Your task to perform on an android device: Clear all items from cart on newegg.com. Add "razer blade" to the cart on newegg.com Image 0: 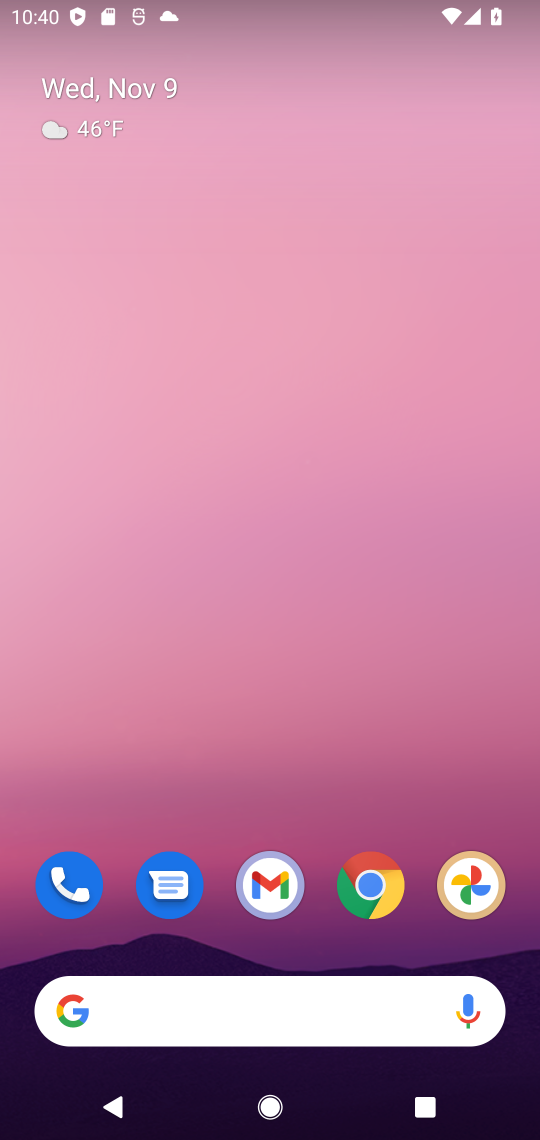
Step 0: click (373, 876)
Your task to perform on an android device: Clear all items from cart on newegg.com. Add "razer blade" to the cart on newegg.com Image 1: 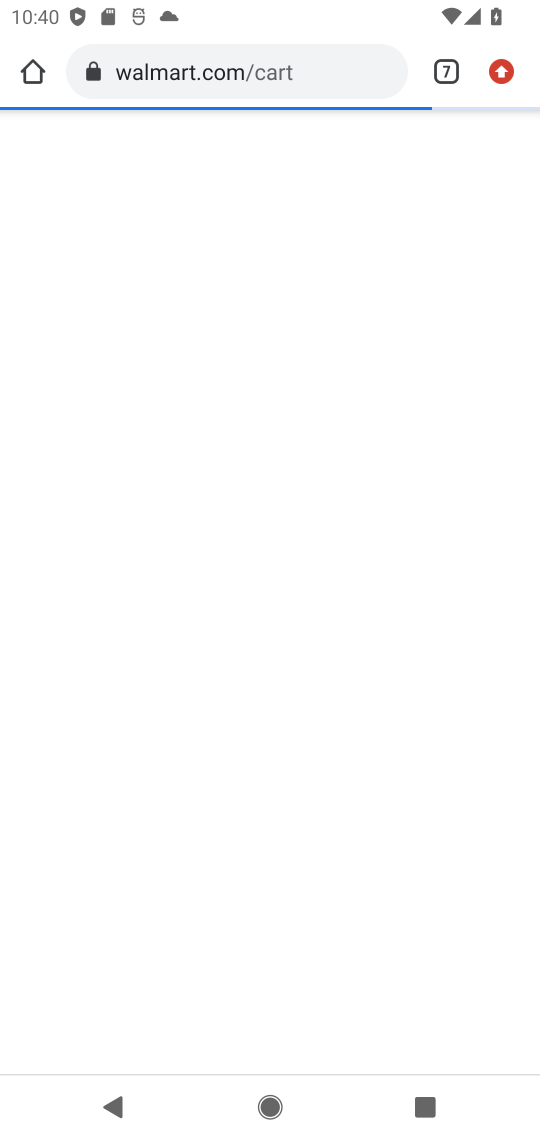
Step 1: click (446, 71)
Your task to perform on an android device: Clear all items from cart on newegg.com. Add "razer blade" to the cart on newegg.com Image 2: 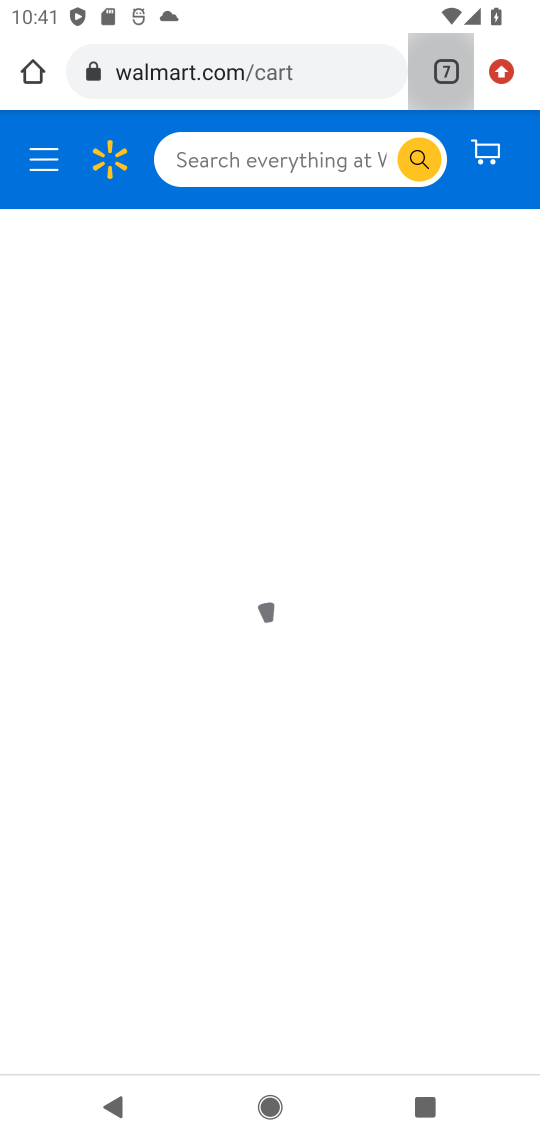
Step 2: click (446, 71)
Your task to perform on an android device: Clear all items from cart on newegg.com. Add "razer blade" to the cart on newegg.com Image 3: 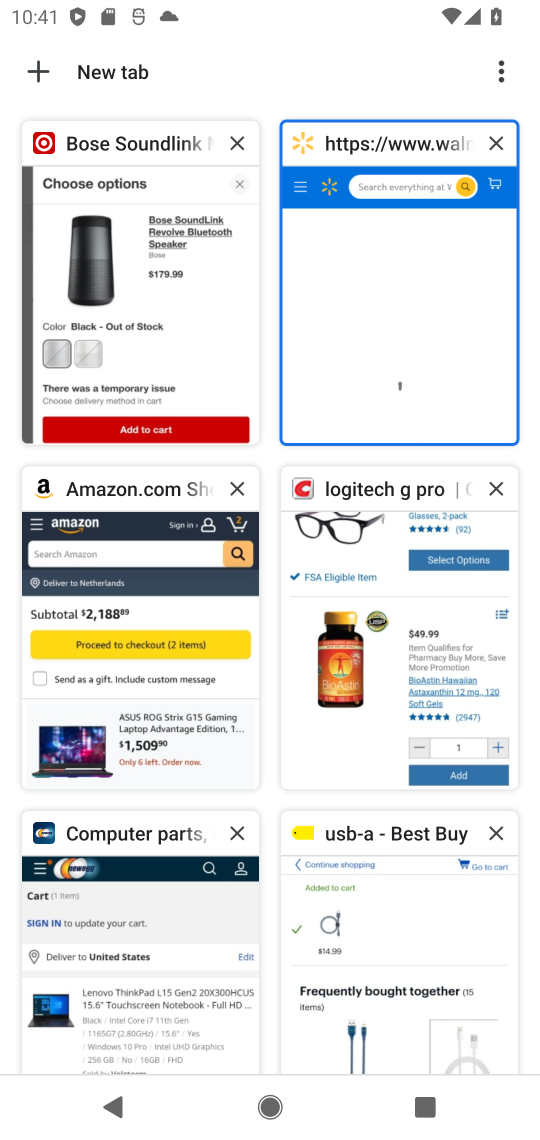
Step 3: click (159, 946)
Your task to perform on an android device: Clear all items from cart on newegg.com. Add "razer blade" to the cart on newegg.com Image 4: 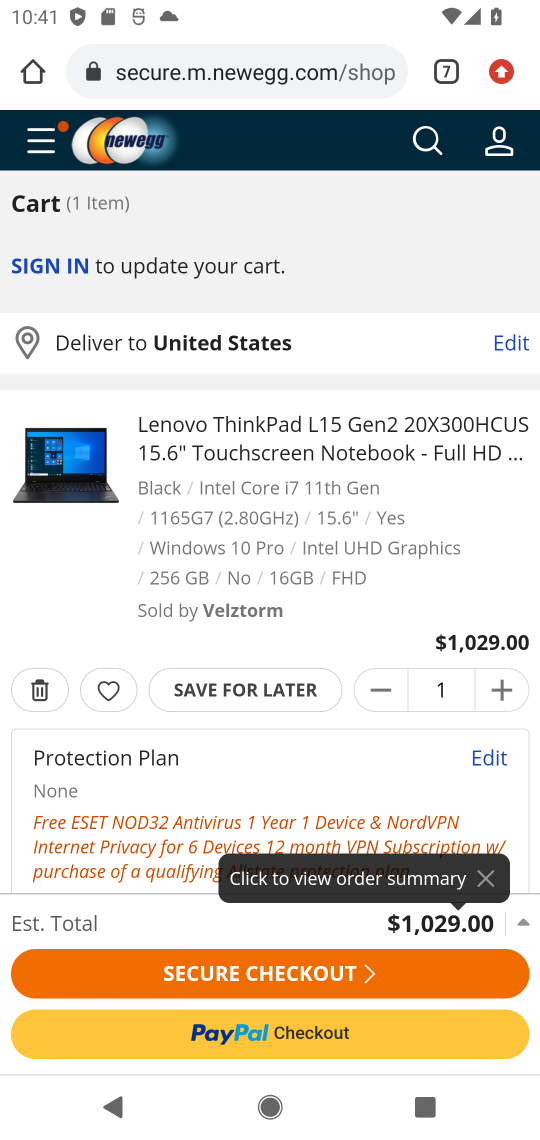
Step 4: click (34, 700)
Your task to perform on an android device: Clear all items from cart on newegg.com. Add "razer blade" to the cart on newegg.com Image 5: 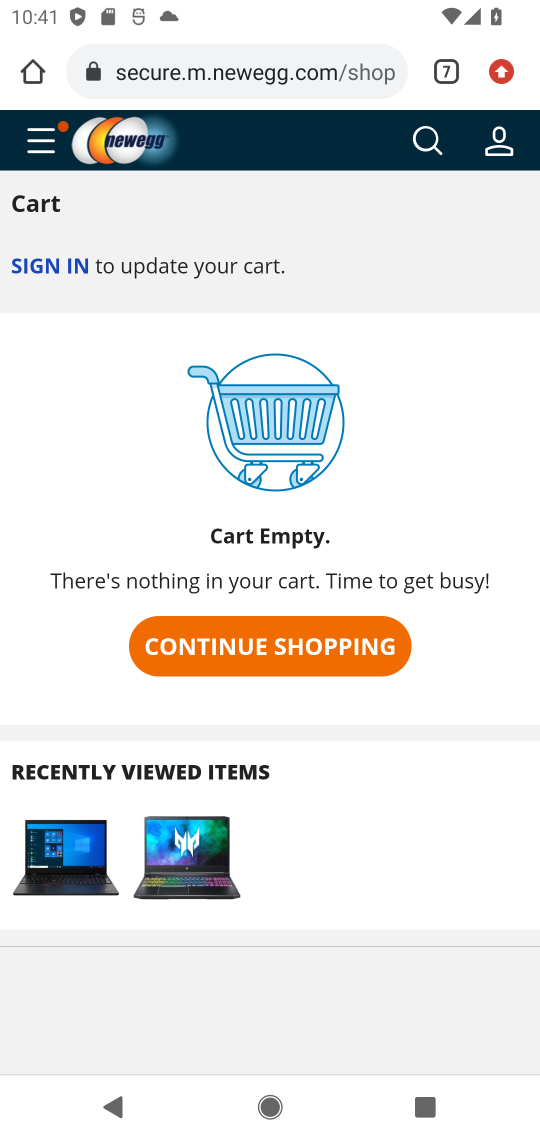
Step 5: click (420, 140)
Your task to perform on an android device: Clear all items from cart on newegg.com. Add "razer blade" to the cart on newegg.com Image 6: 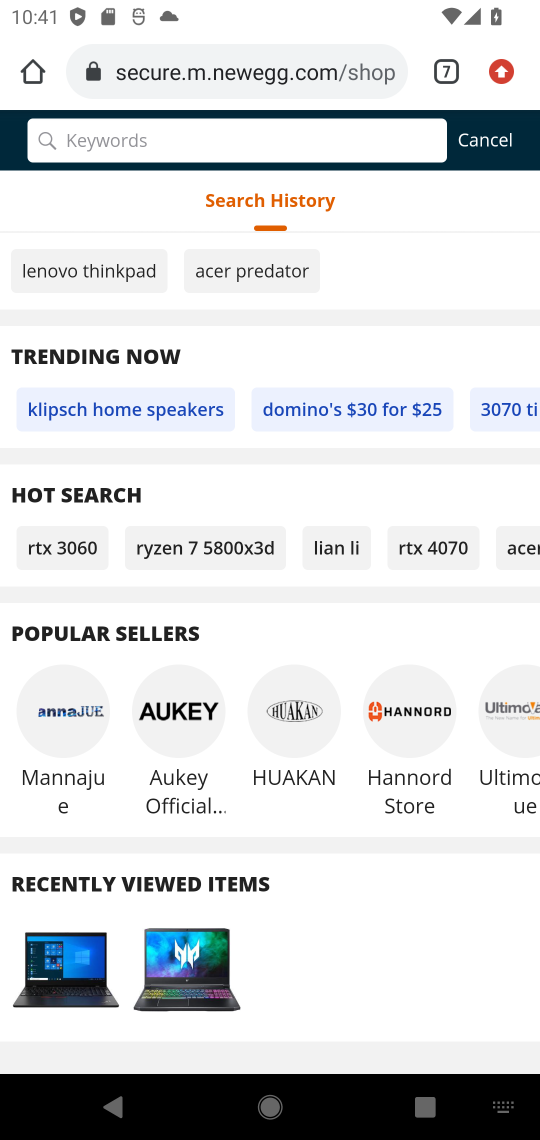
Step 6: type "razer blade"
Your task to perform on an android device: Clear all items from cart on newegg.com. Add "razer blade" to the cart on newegg.com Image 7: 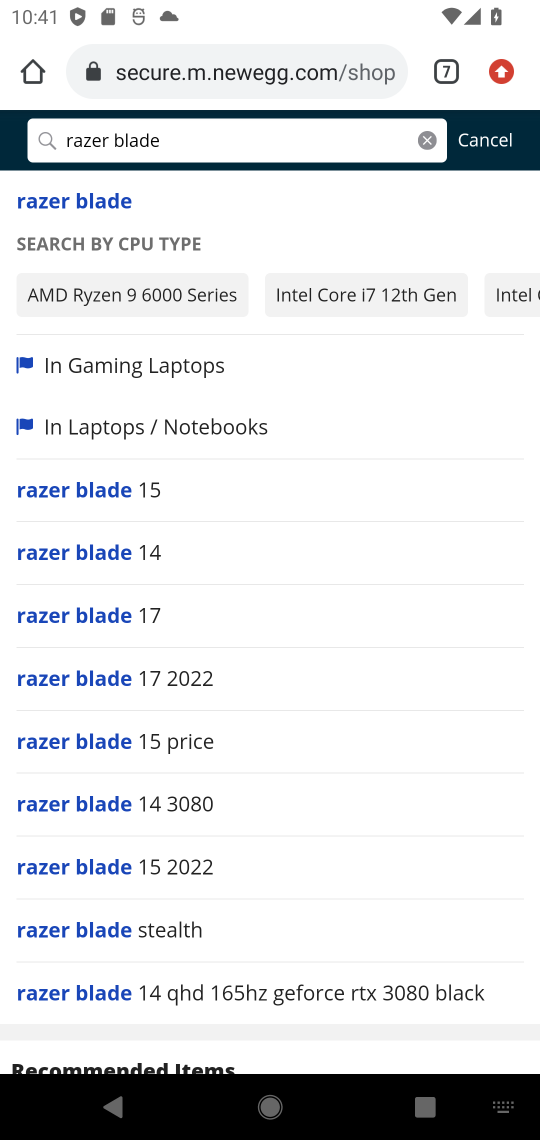
Step 7: click (75, 204)
Your task to perform on an android device: Clear all items from cart on newegg.com. Add "razer blade" to the cart on newegg.com Image 8: 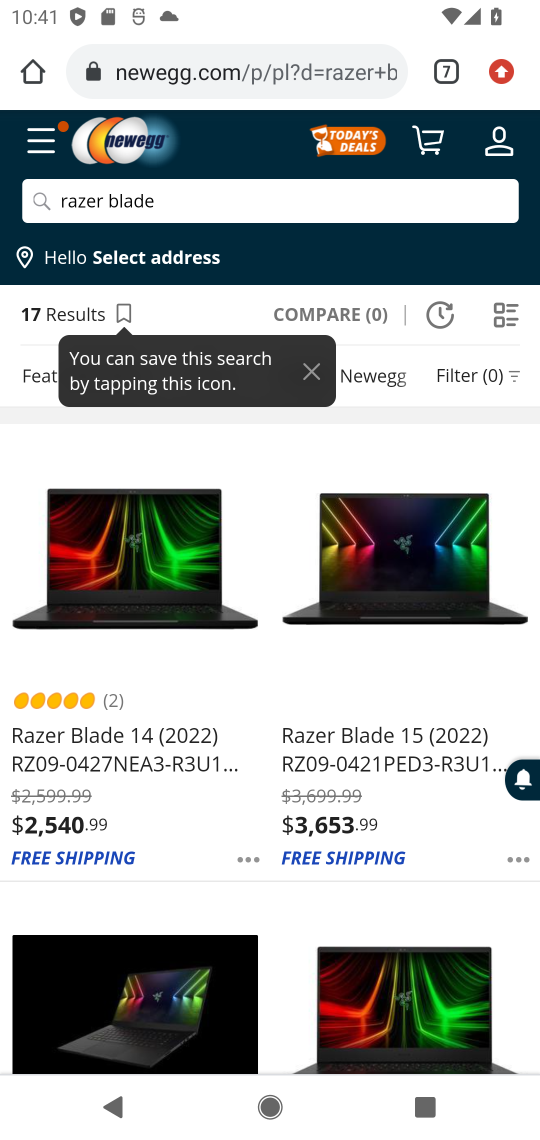
Step 8: click (130, 744)
Your task to perform on an android device: Clear all items from cart on newegg.com. Add "razer blade" to the cart on newegg.com Image 9: 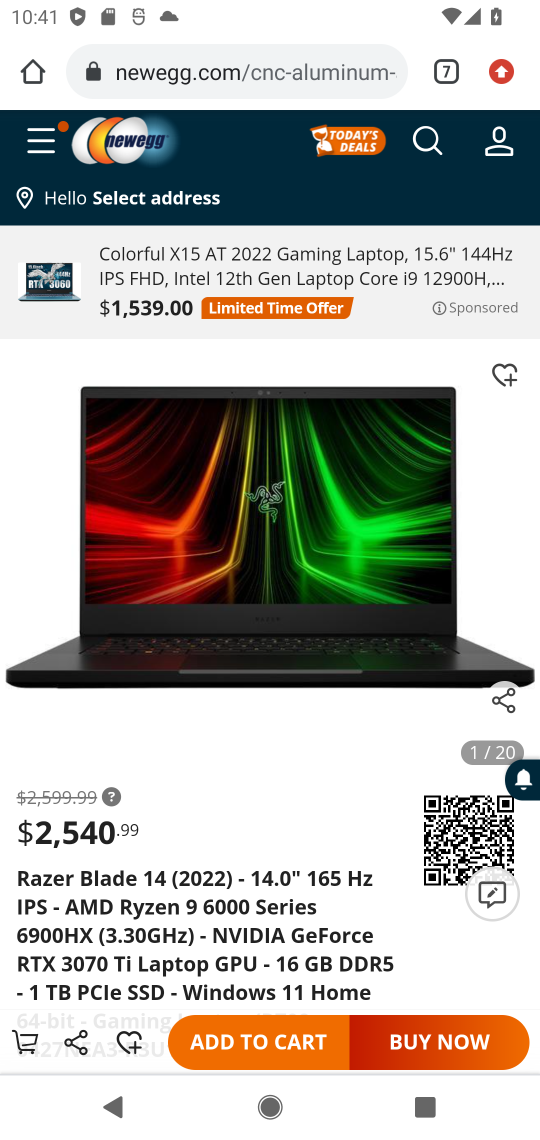
Step 9: click (207, 1040)
Your task to perform on an android device: Clear all items from cart on newegg.com. Add "razer blade" to the cart on newegg.com Image 10: 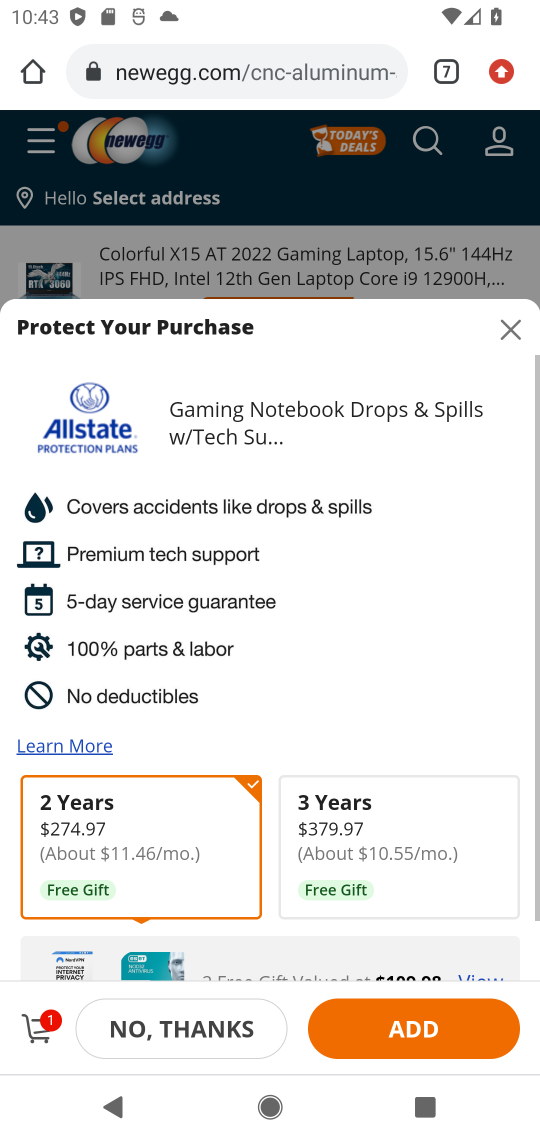
Step 10: task complete